Your task to perform on an android device: change the clock style Image 0: 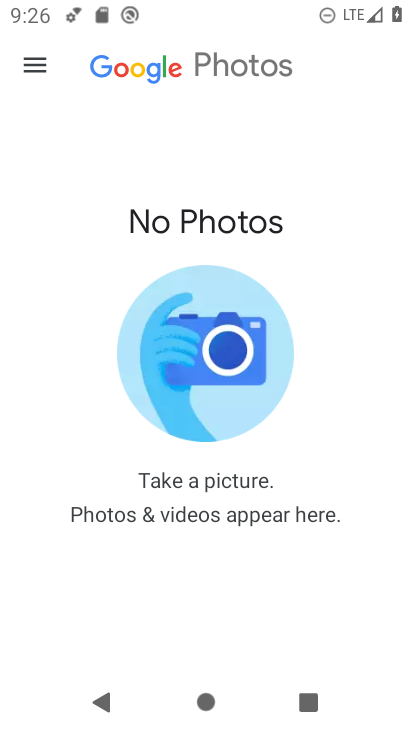
Step 0: press home button
Your task to perform on an android device: change the clock style Image 1: 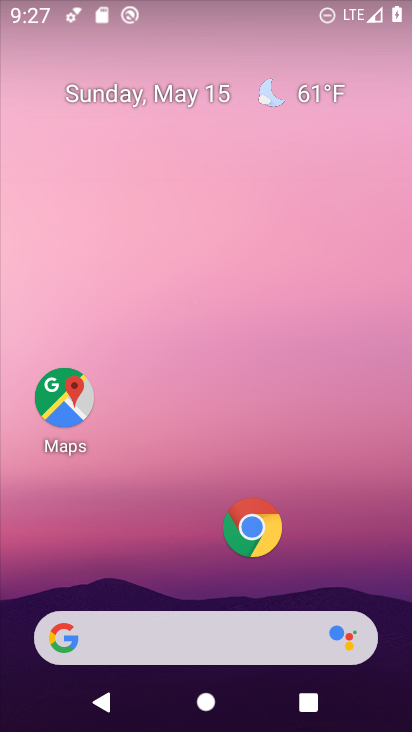
Step 1: drag from (194, 575) to (193, 51)
Your task to perform on an android device: change the clock style Image 2: 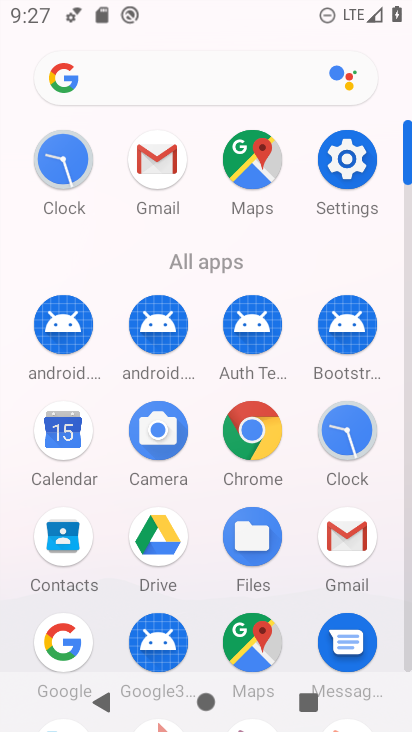
Step 2: click (65, 156)
Your task to perform on an android device: change the clock style Image 3: 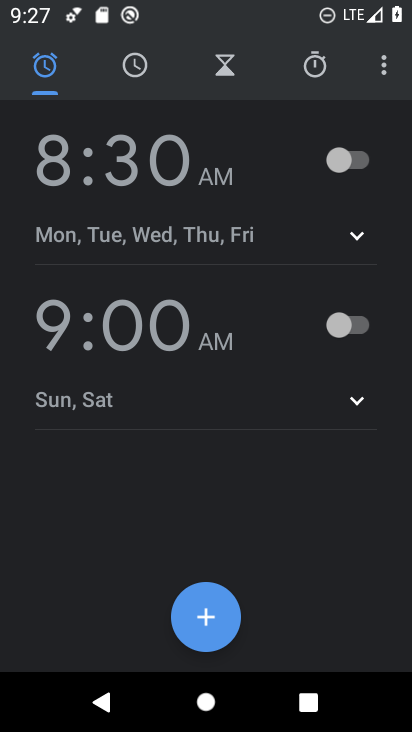
Step 3: click (381, 57)
Your task to perform on an android device: change the clock style Image 4: 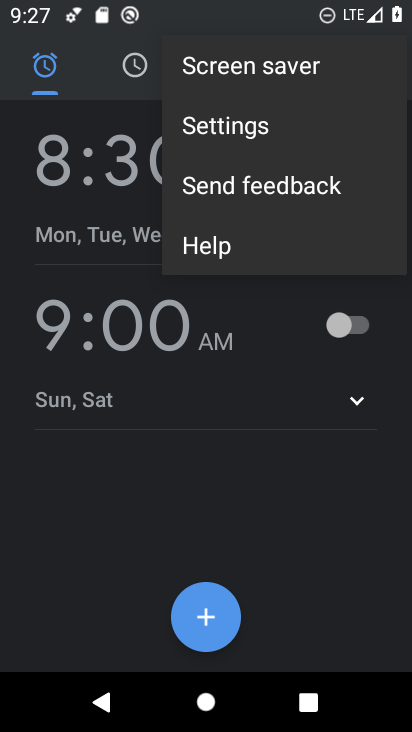
Step 4: click (260, 121)
Your task to perform on an android device: change the clock style Image 5: 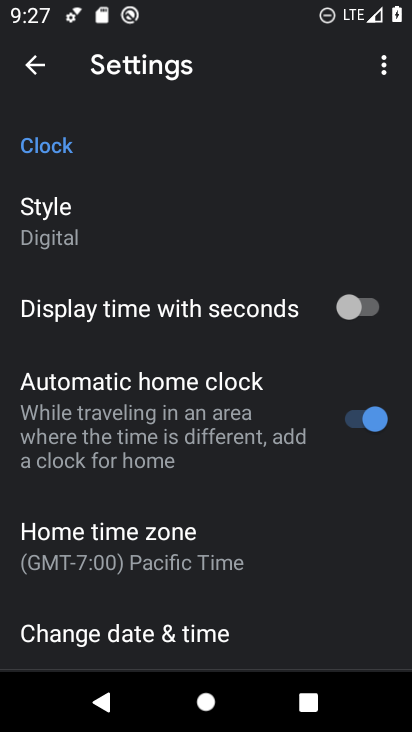
Step 5: click (98, 227)
Your task to perform on an android device: change the clock style Image 6: 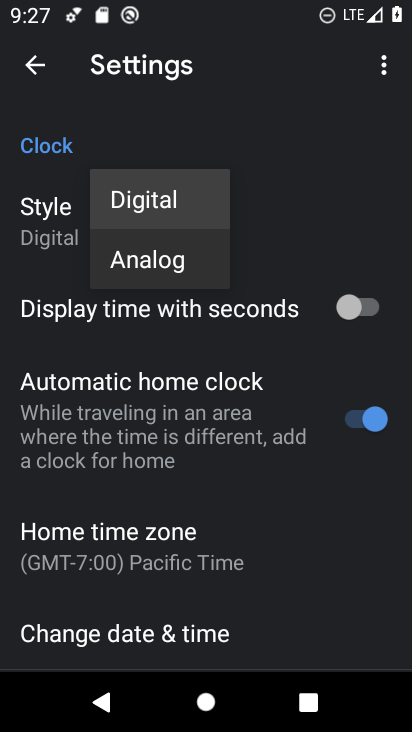
Step 6: click (150, 264)
Your task to perform on an android device: change the clock style Image 7: 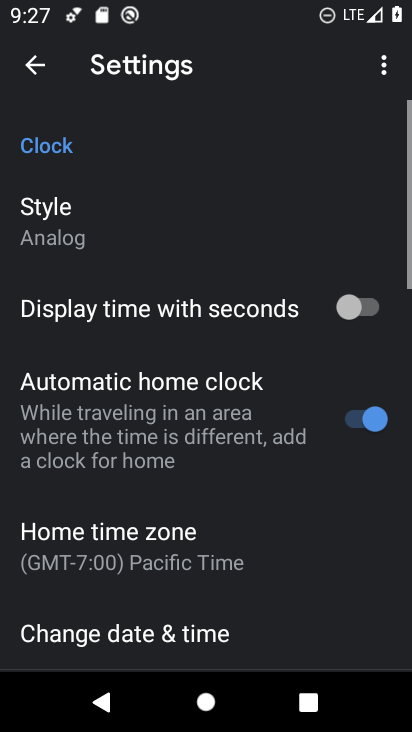
Step 7: task complete